Your task to perform on an android device: Find coffee shops on Maps Image 0: 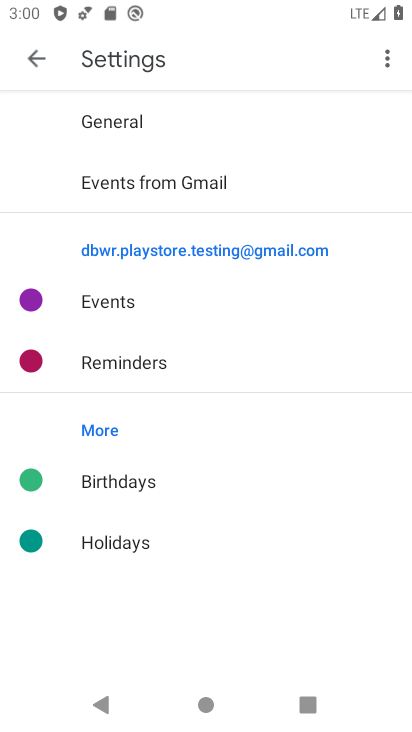
Step 0: press home button
Your task to perform on an android device: Find coffee shops on Maps Image 1: 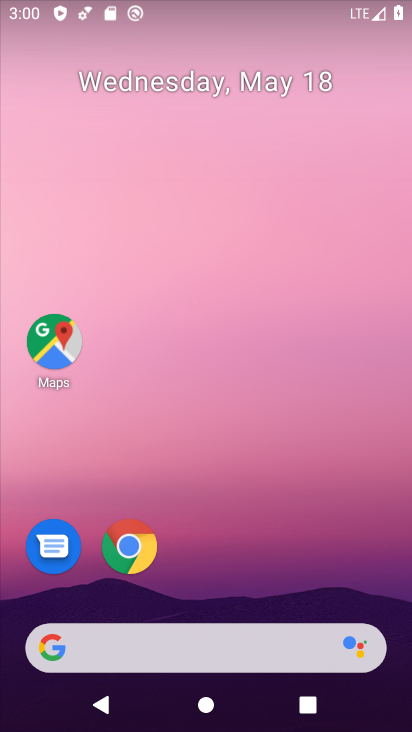
Step 1: drag from (189, 723) to (187, 163)
Your task to perform on an android device: Find coffee shops on Maps Image 2: 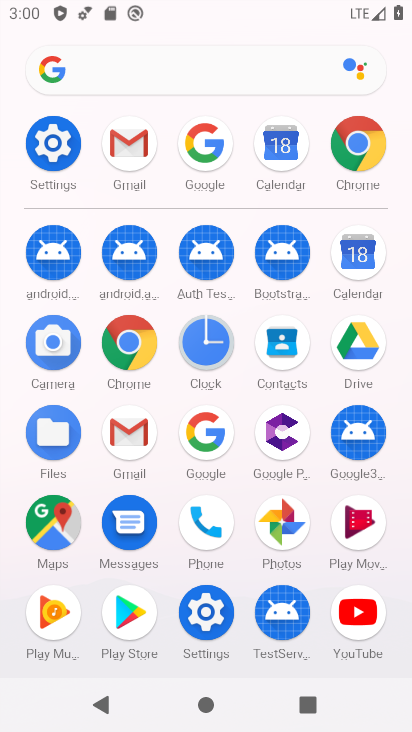
Step 2: click (51, 511)
Your task to perform on an android device: Find coffee shops on Maps Image 3: 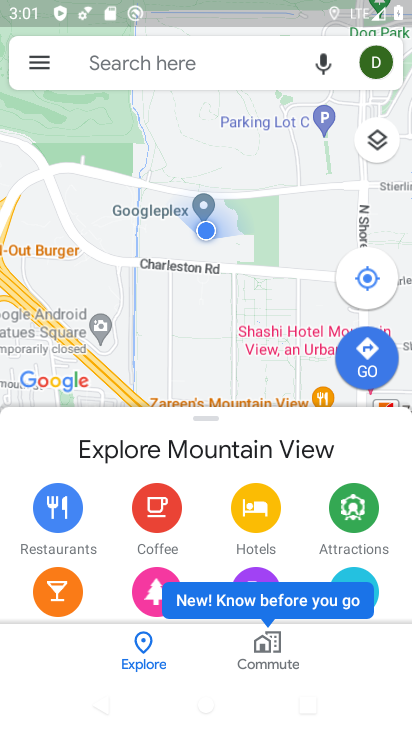
Step 3: click (172, 63)
Your task to perform on an android device: Find coffee shops on Maps Image 4: 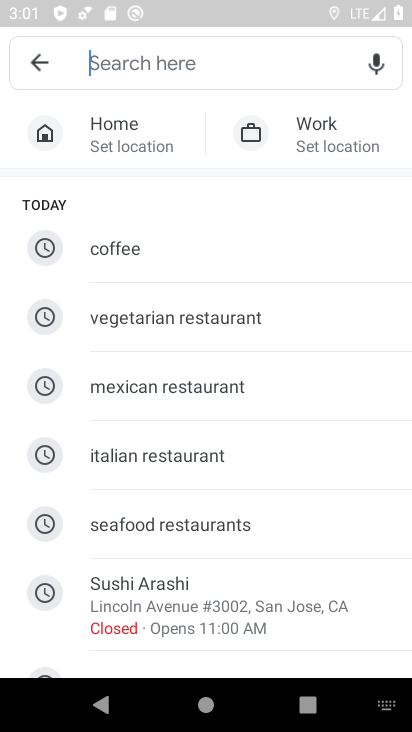
Step 4: type "coffee shops"
Your task to perform on an android device: Find coffee shops on Maps Image 5: 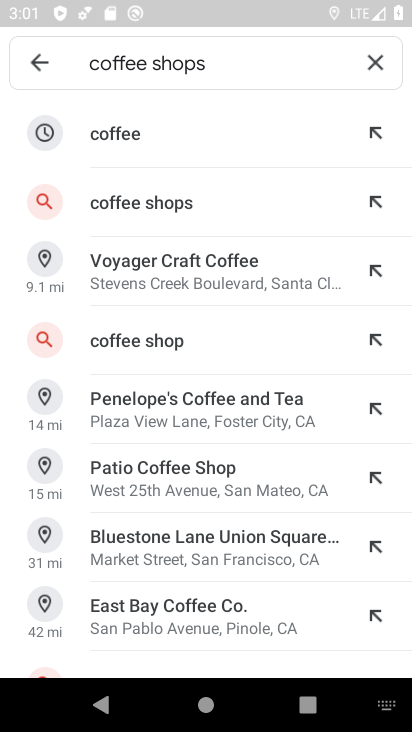
Step 5: click (173, 197)
Your task to perform on an android device: Find coffee shops on Maps Image 6: 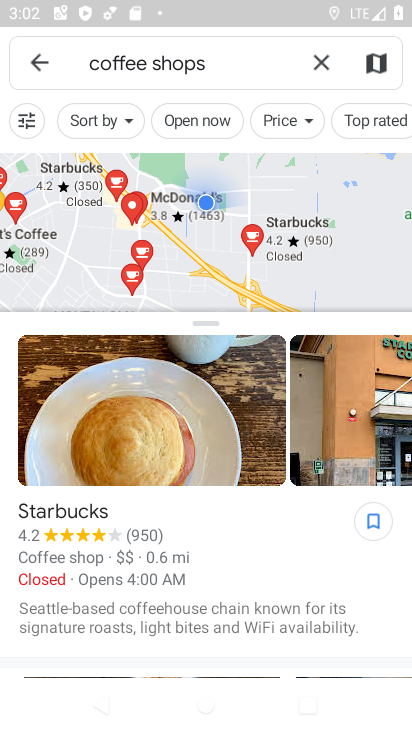
Step 6: task complete